Your task to perform on an android device: What's the weather today? Image 0: 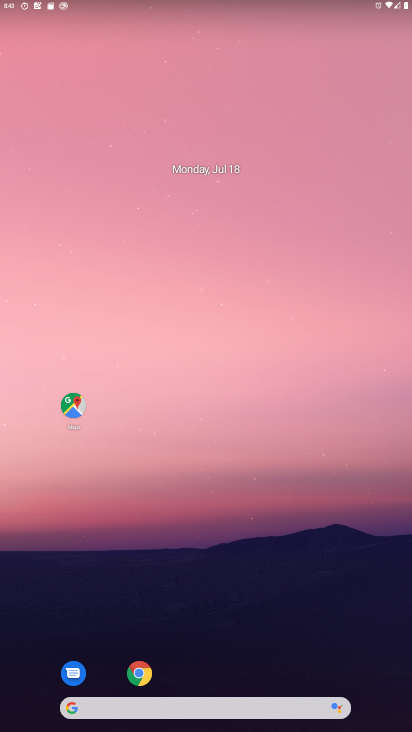
Step 0: click (123, 710)
Your task to perform on an android device: What's the weather today? Image 1: 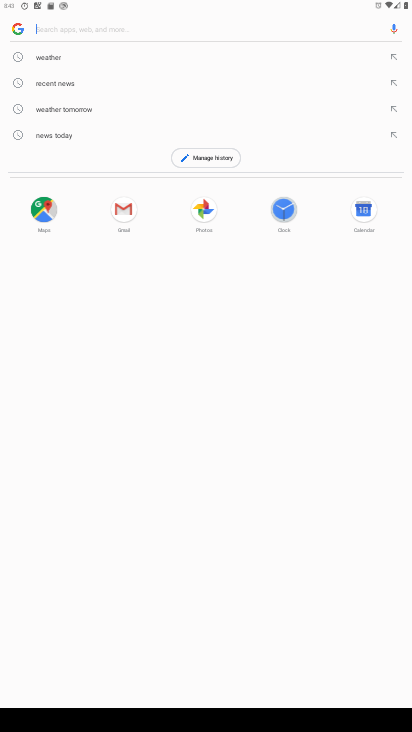
Step 1: type "weather today"
Your task to perform on an android device: What's the weather today? Image 2: 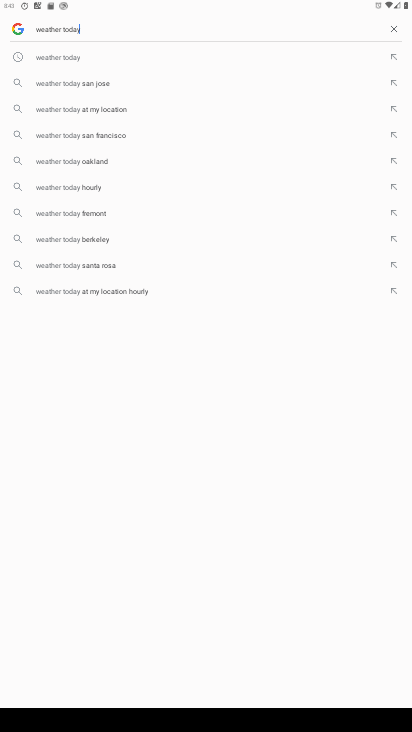
Step 2: click (46, 50)
Your task to perform on an android device: What's the weather today? Image 3: 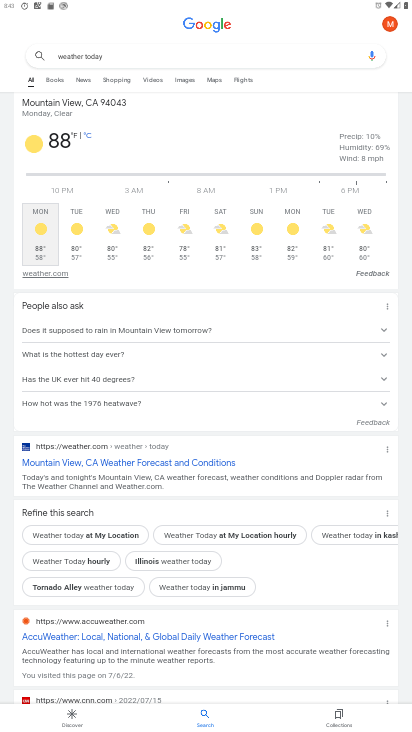
Step 3: task complete